Your task to perform on an android device: Open calendar and show me the fourth week of next month Image 0: 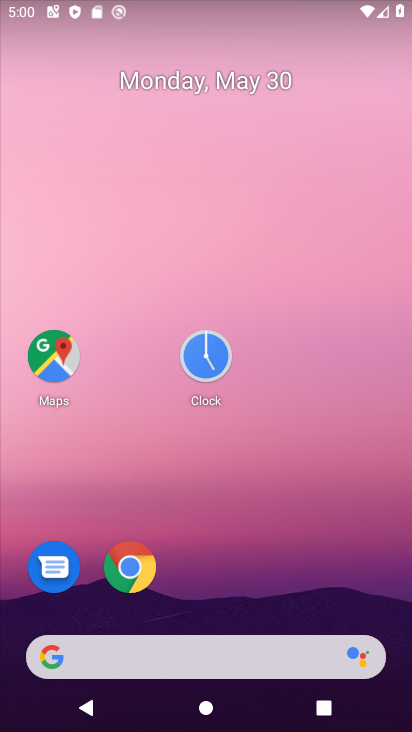
Step 0: drag from (268, 617) to (142, 89)
Your task to perform on an android device: Open calendar and show me the fourth week of next month Image 1: 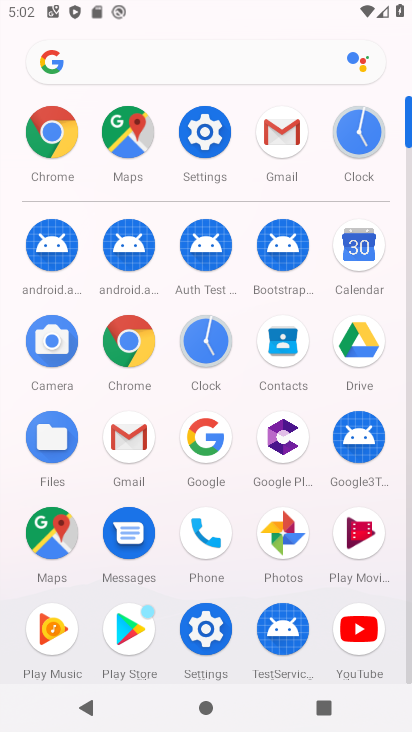
Step 1: click (356, 246)
Your task to perform on an android device: Open calendar and show me the fourth week of next month Image 2: 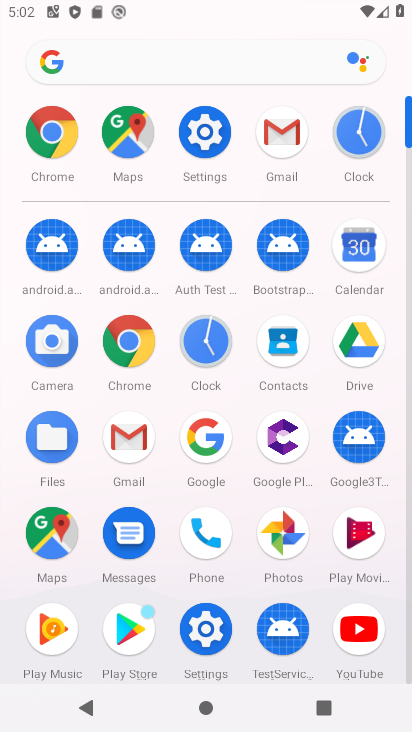
Step 2: click (357, 246)
Your task to perform on an android device: Open calendar and show me the fourth week of next month Image 3: 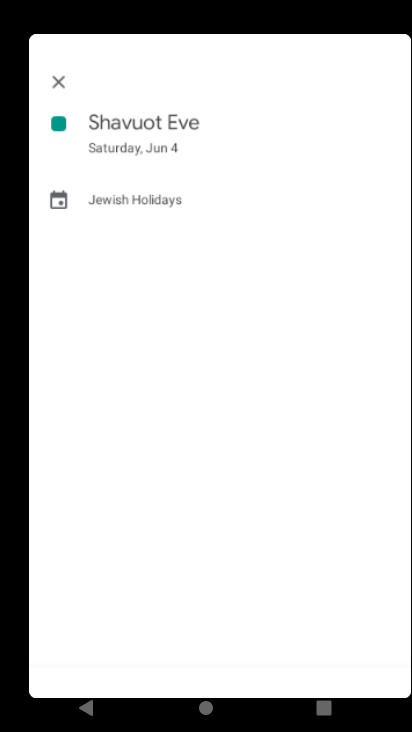
Step 3: click (357, 246)
Your task to perform on an android device: Open calendar and show me the fourth week of next month Image 4: 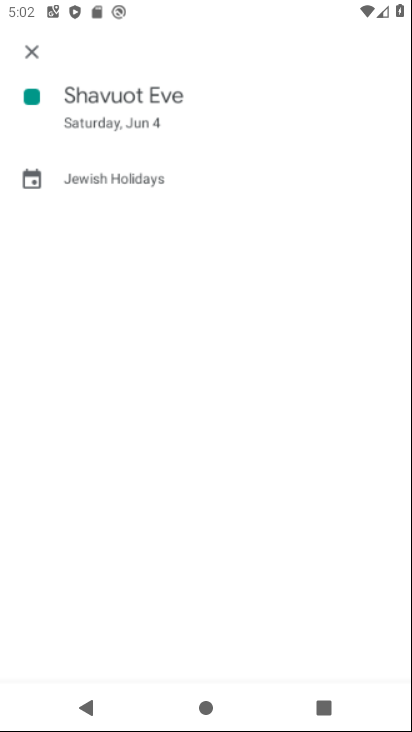
Step 4: click (360, 246)
Your task to perform on an android device: Open calendar and show me the fourth week of next month Image 5: 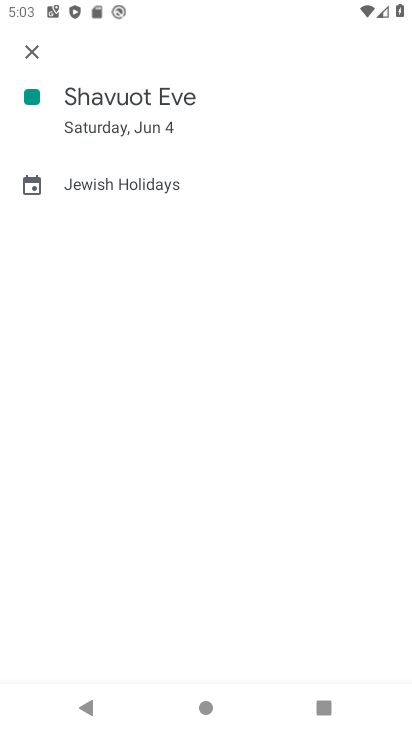
Step 5: click (33, 47)
Your task to perform on an android device: Open calendar and show me the fourth week of next month Image 6: 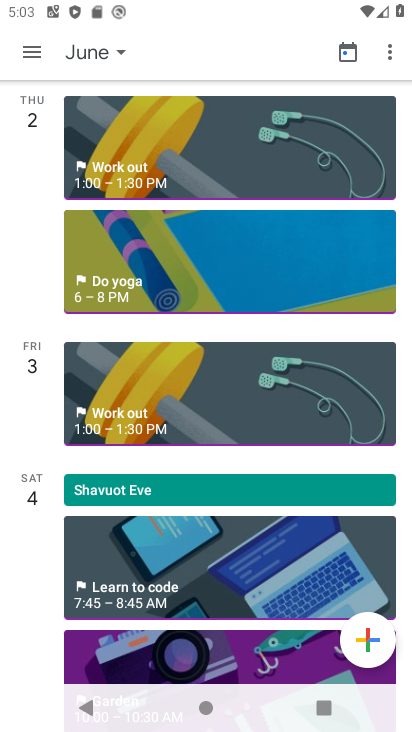
Step 6: click (35, 47)
Your task to perform on an android device: Open calendar and show me the fourth week of next month Image 7: 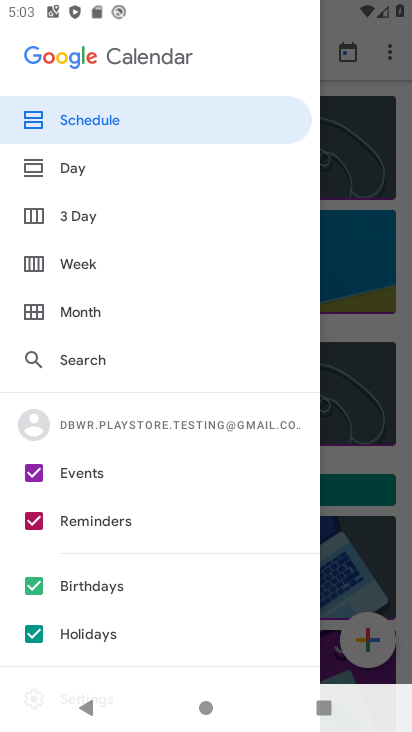
Step 7: press back button
Your task to perform on an android device: Open calendar and show me the fourth week of next month Image 8: 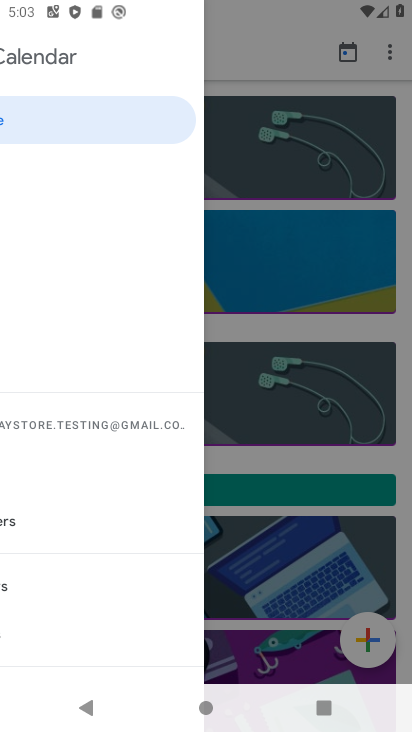
Step 8: press back button
Your task to perform on an android device: Open calendar and show me the fourth week of next month Image 9: 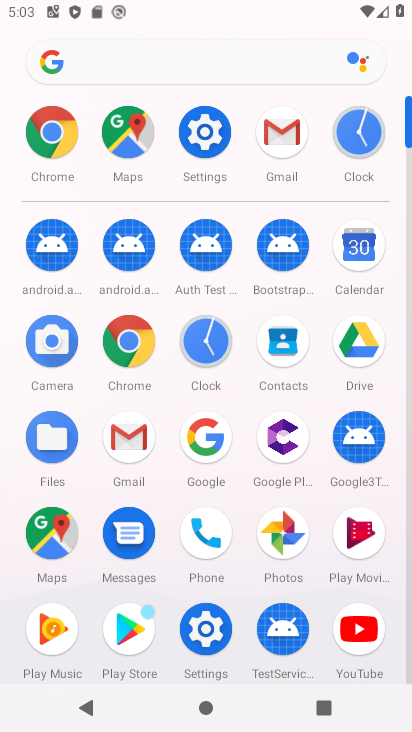
Step 9: click (366, 250)
Your task to perform on an android device: Open calendar and show me the fourth week of next month Image 10: 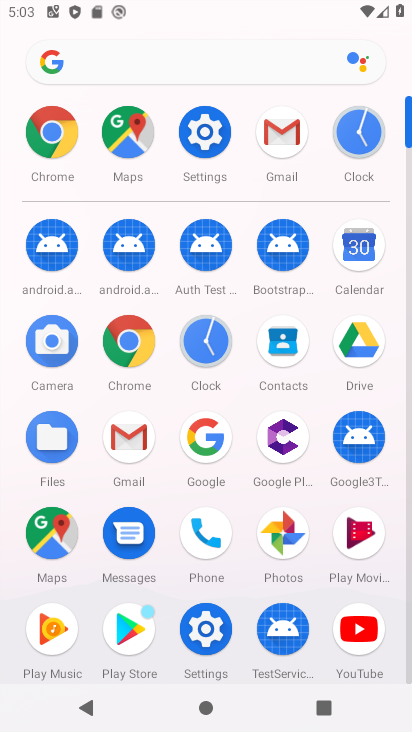
Step 10: click (366, 250)
Your task to perform on an android device: Open calendar and show me the fourth week of next month Image 11: 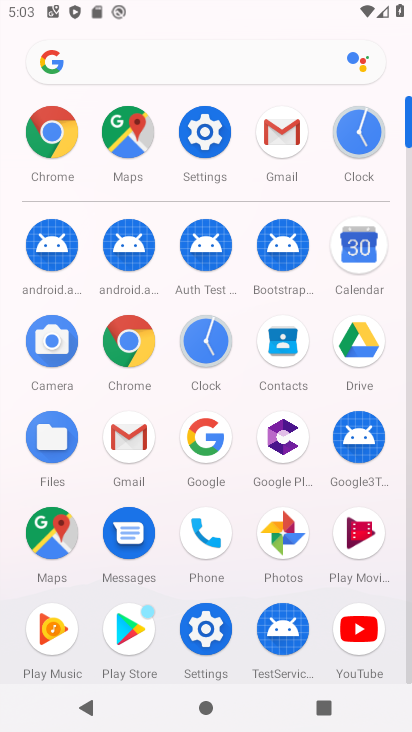
Step 11: click (366, 250)
Your task to perform on an android device: Open calendar and show me the fourth week of next month Image 12: 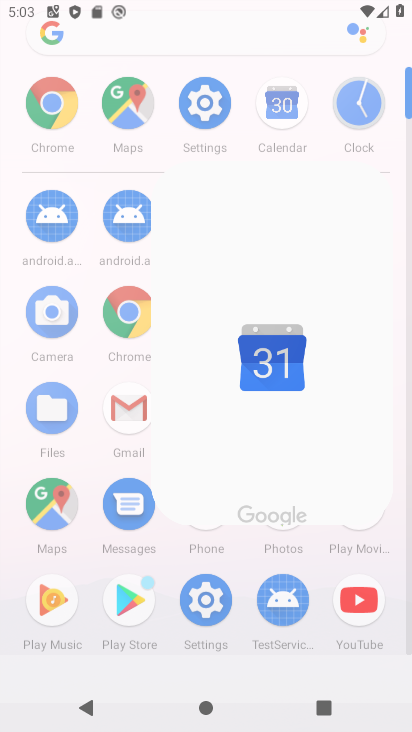
Step 12: click (366, 250)
Your task to perform on an android device: Open calendar and show me the fourth week of next month Image 13: 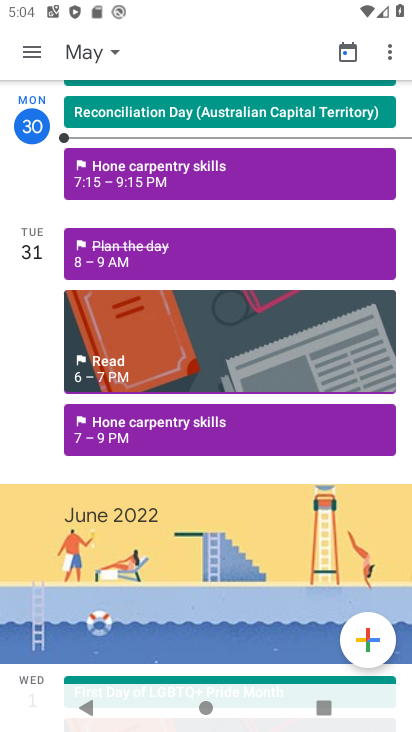
Step 13: click (112, 51)
Your task to perform on an android device: Open calendar and show me the fourth week of next month Image 14: 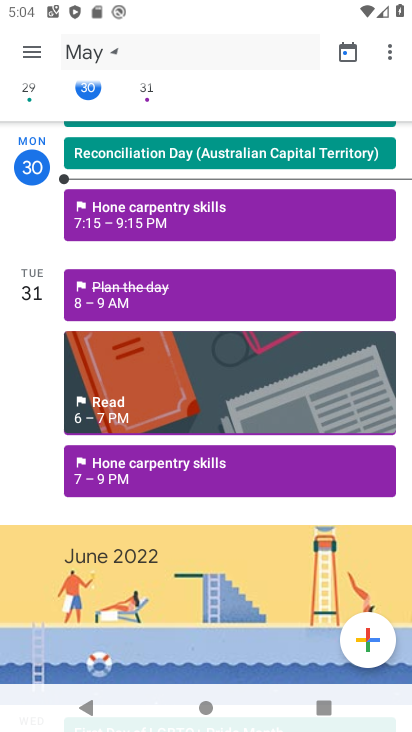
Step 14: click (116, 52)
Your task to perform on an android device: Open calendar and show me the fourth week of next month Image 15: 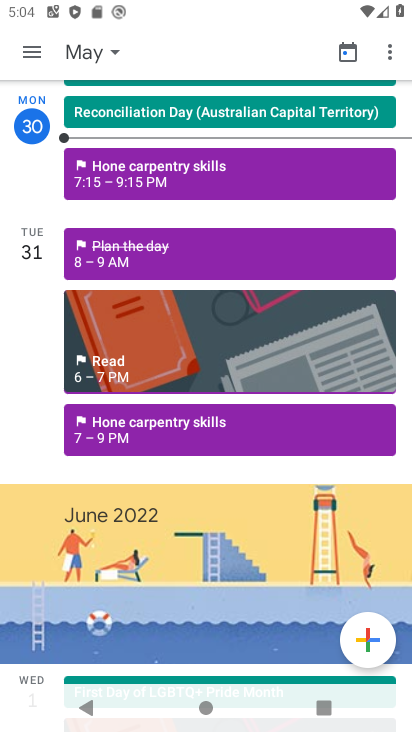
Step 15: click (109, 46)
Your task to perform on an android device: Open calendar and show me the fourth week of next month Image 16: 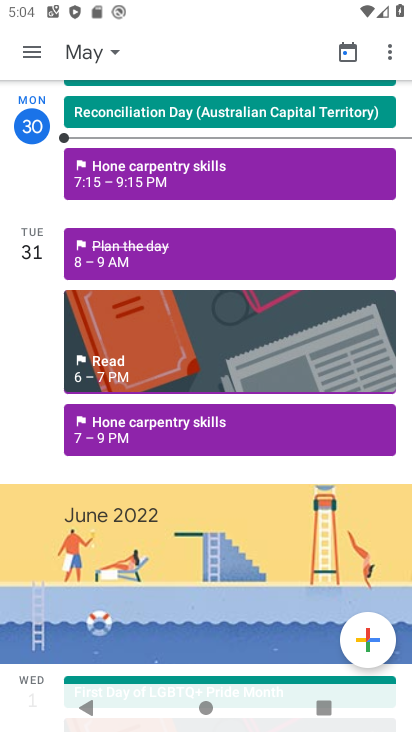
Step 16: click (112, 44)
Your task to perform on an android device: Open calendar and show me the fourth week of next month Image 17: 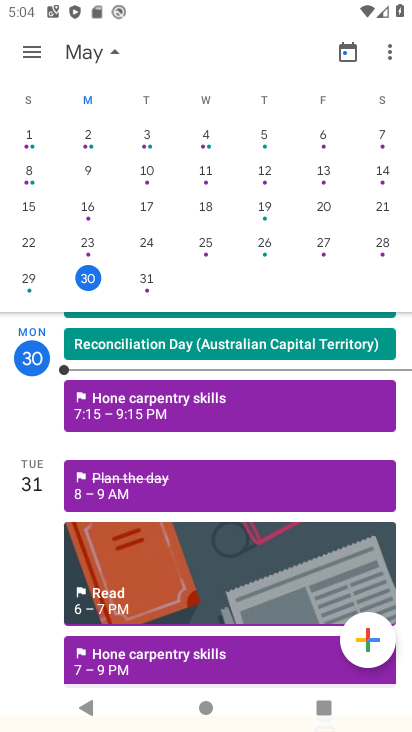
Step 17: drag from (221, 181) to (14, 235)
Your task to perform on an android device: Open calendar and show me the fourth week of next month Image 18: 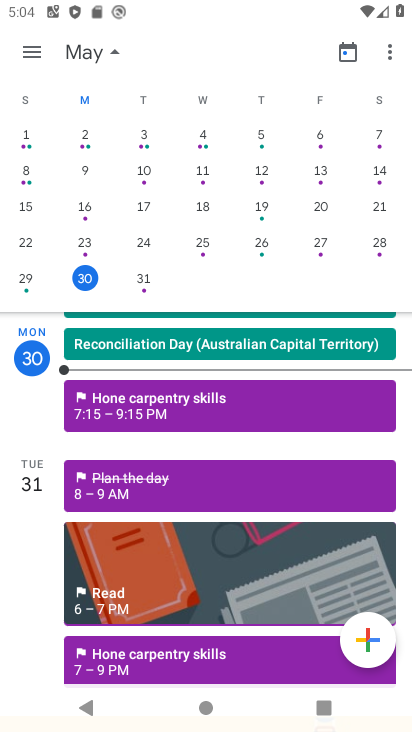
Step 18: drag from (231, 219) to (0, 234)
Your task to perform on an android device: Open calendar and show me the fourth week of next month Image 19: 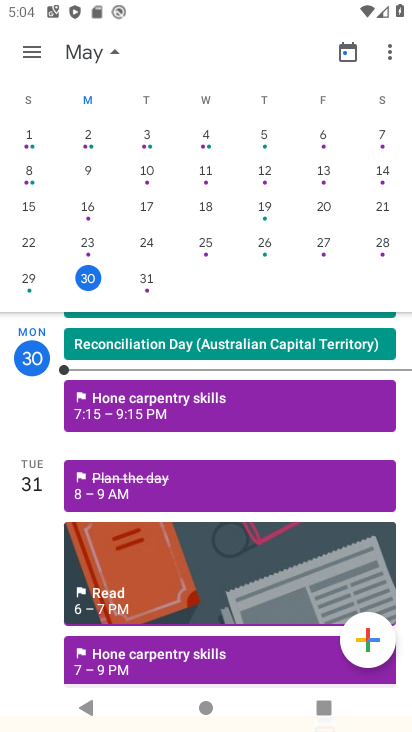
Step 19: drag from (181, 210) to (7, 264)
Your task to perform on an android device: Open calendar and show me the fourth week of next month Image 20: 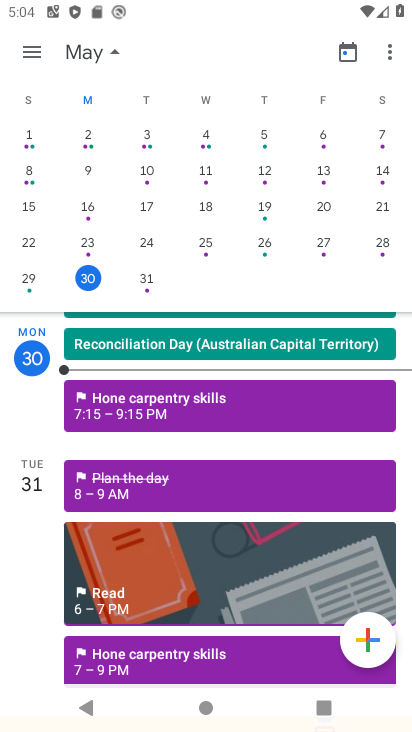
Step 20: drag from (176, 203) to (23, 260)
Your task to perform on an android device: Open calendar and show me the fourth week of next month Image 21: 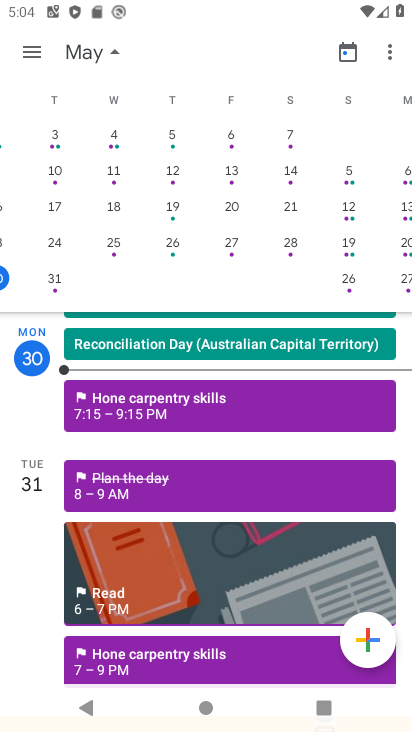
Step 21: drag from (167, 230) to (17, 256)
Your task to perform on an android device: Open calendar and show me the fourth week of next month Image 22: 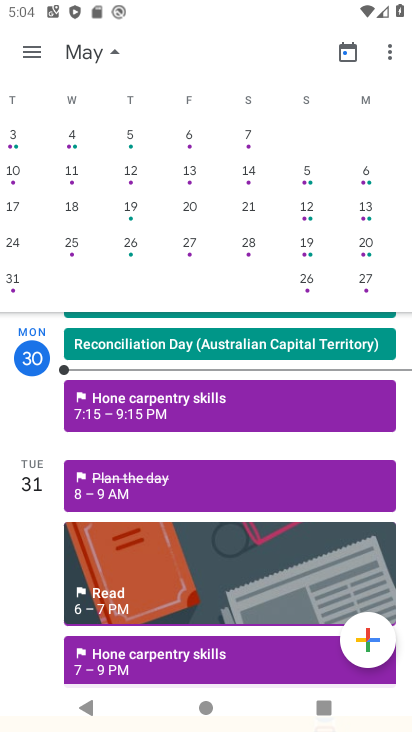
Step 22: drag from (221, 221) to (6, 254)
Your task to perform on an android device: Open calendar and show me the fourth week of next month Image 23: 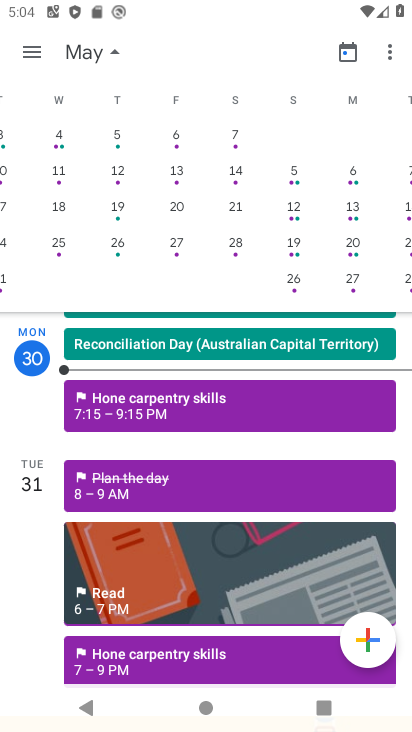
Step 23: drag from (298, 210) to (48, 224)
Your task to perform on an android device: Open calendar and show me the fourth week of next month Image 24: 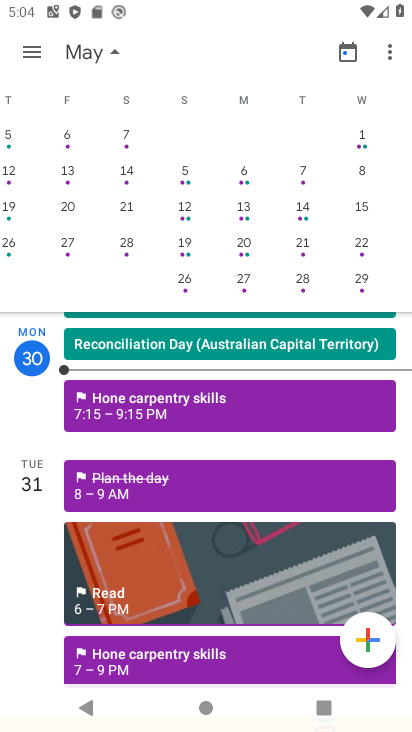
Step 24: drag from (196, 199) to (43, 205)
Your task to perform on an android device: Open calendar and show me the fourth week of next month Image 25: 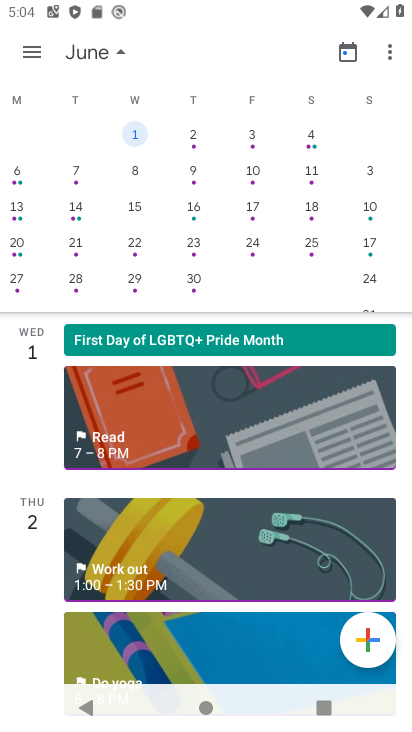
Step 25: drag from (146, 188) to (21, 235)
Your task to perform on an android device: Open calendar and show me the fourth week of next month Image 26: 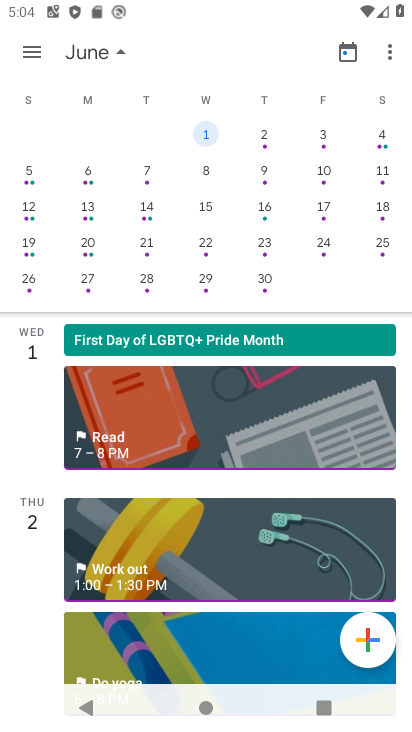
Step 26: click (196, 245)
Your task to perform on an android device: Open calendar and show me the fourth week of next month Image 27: 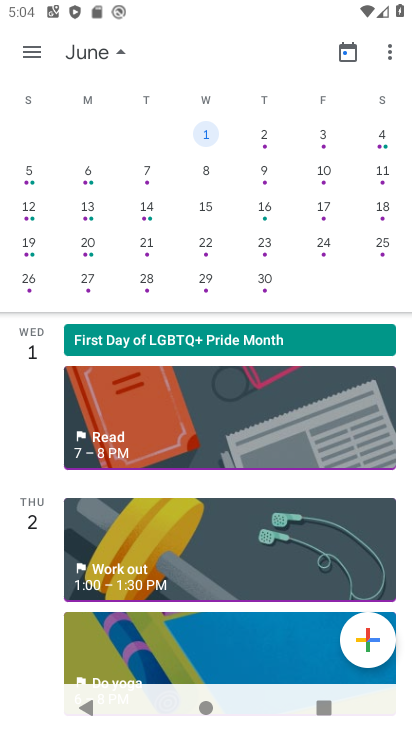
Step 27: click (201, 245)
Your task to perform on an android device: Open calendar and show me the fourth week of next month Image 28: 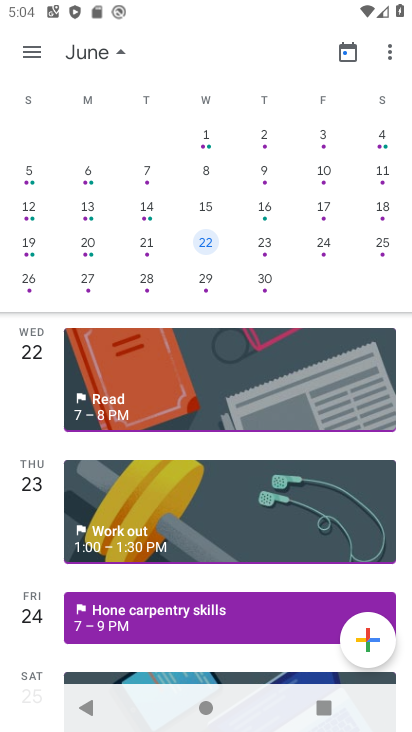
Step 28: click (202, 244)
Your task to perform on an android device: Open calendar and show me the fourth week of next month Image 29: 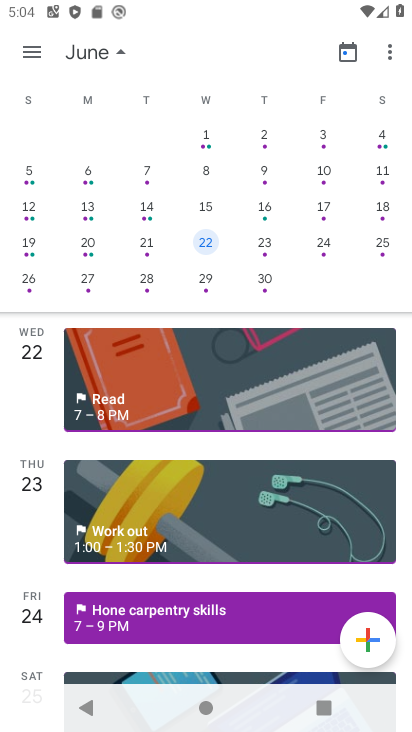
Step 29: click (202, 244)
Your task to perform on an android device: Open calendar and show me the fourth week of next month Image 30: 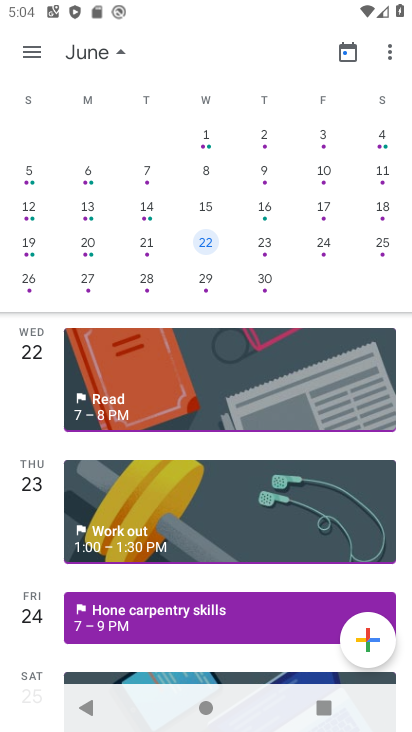
Step 30: task complete